Your task to perform on an android device: open wifi settings Image 0: 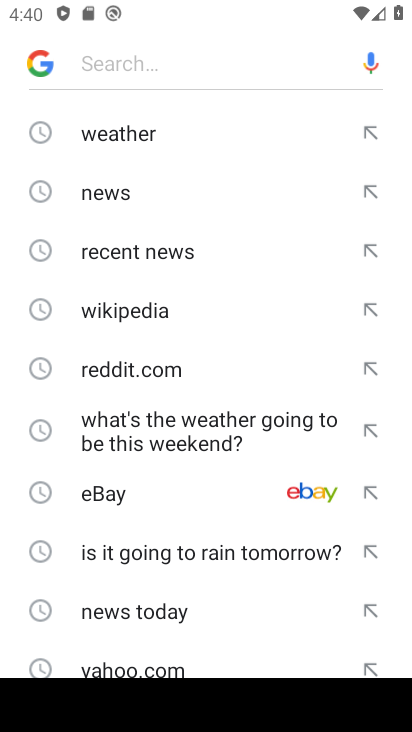
Step 0: press back button
Your task to perform on an android device: open wifi settings Image 1: 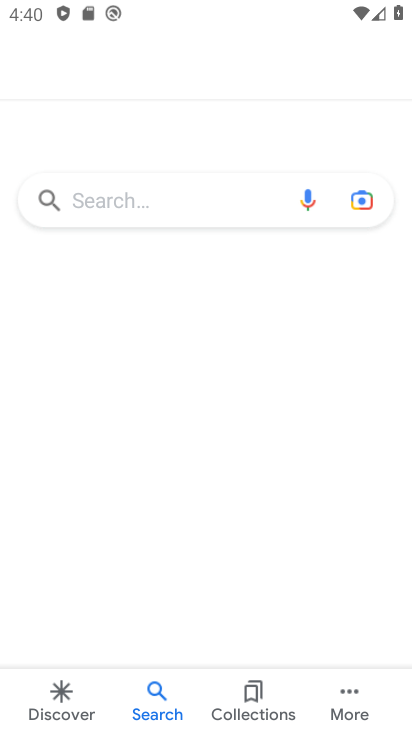
Step 1: press back button
Your task to perform on an android device: open wifi settings Image 2: 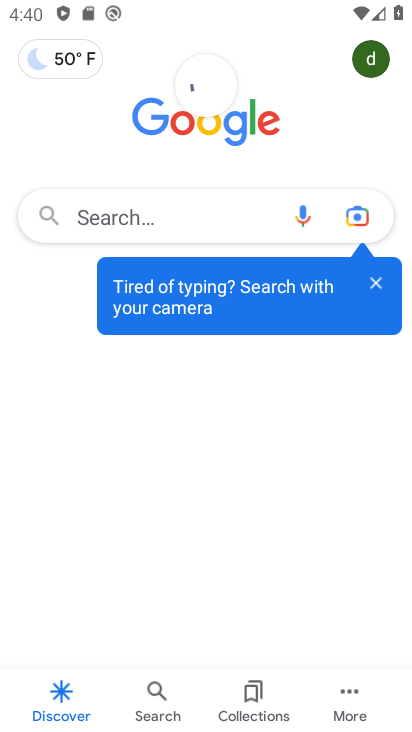
Step 2: press back button
Your task to perform on an android device: open wifi settings Image 3: 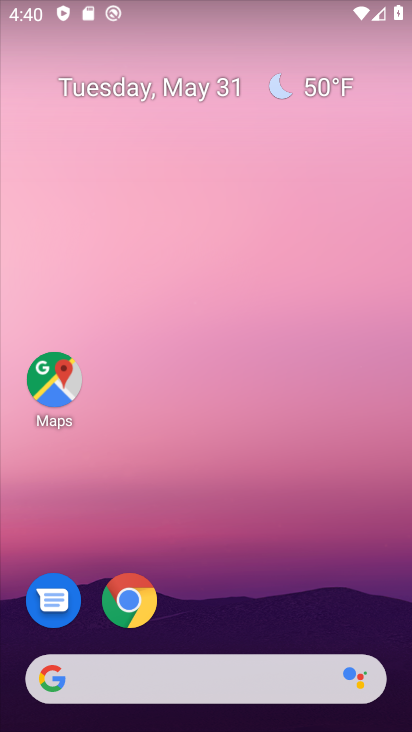
Step 3: drag from (297, 602) to (267, 122)
Your task to perform on an android device: open wifi settings Image 4: 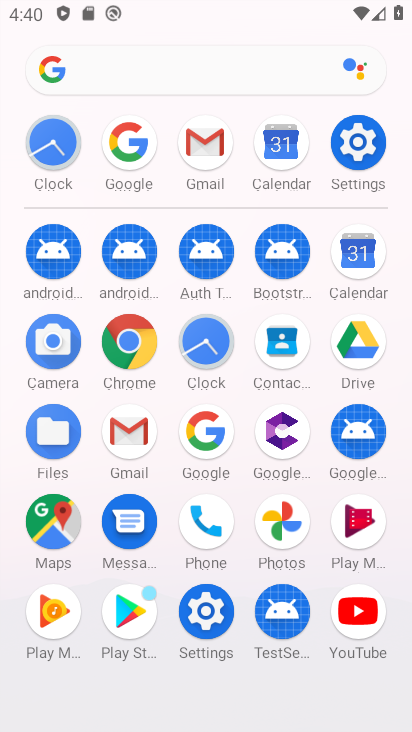
Step 4: click (356, 141)
Your task to perform on an android device: open wifi settings Image 5: 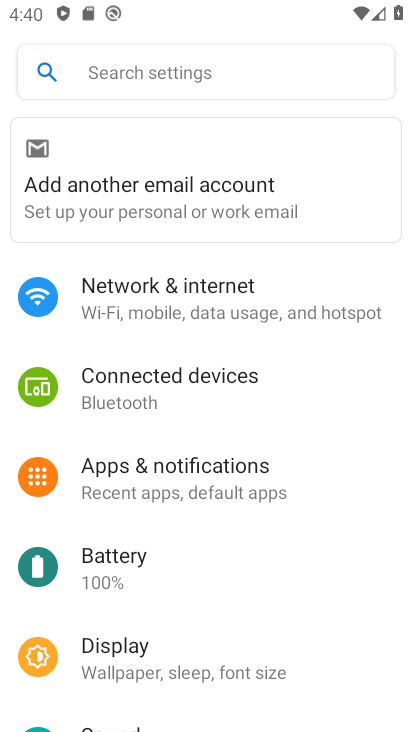
Step 5: click (202, 297)
Your task to perform on an android device: open wifi settings Image 6: 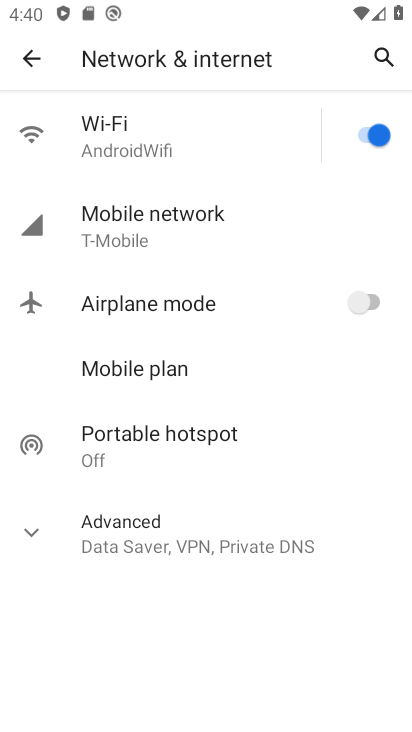
Step 6: click (132, 147)
Your task to perform on an android device: open wifi settings Image 7: 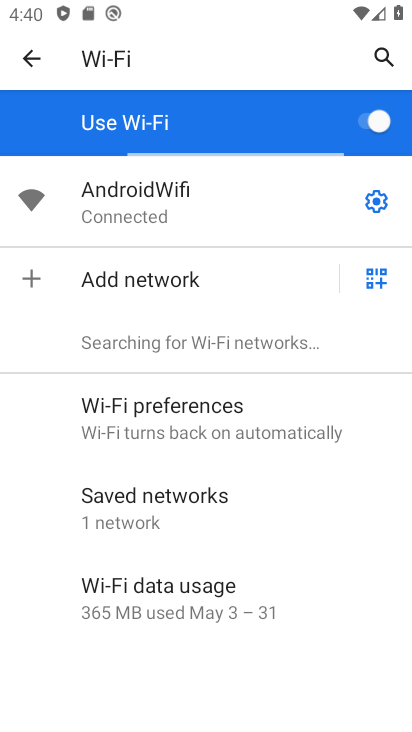
Step 7: click (373, 195)
Your task to perform on an android device: open wifi settings Image 8: 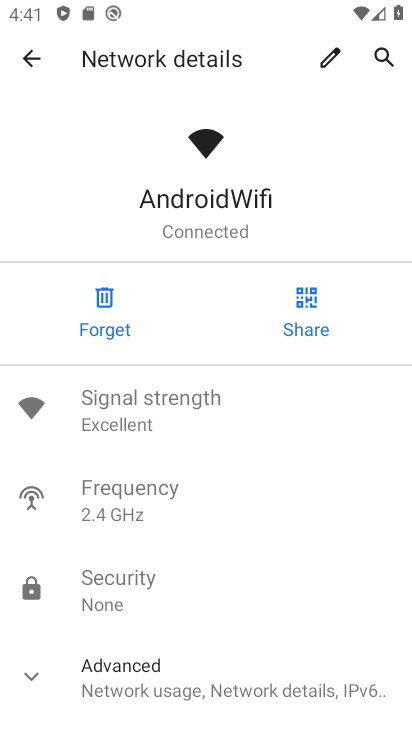
Step 8: task complete